Your task to perform on an android device: change the clock style Image 0: 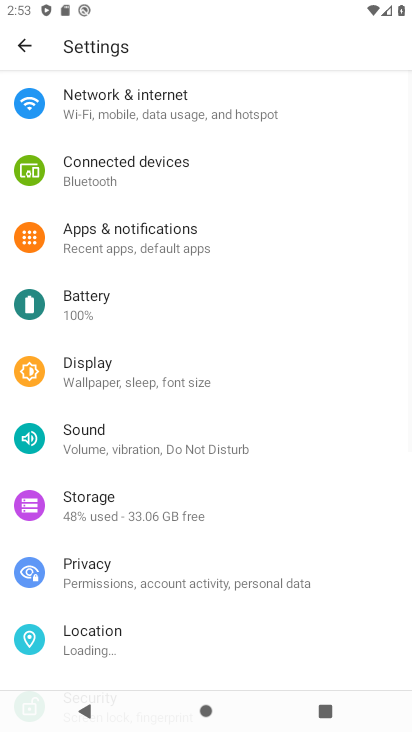
Step 0: press back button
Your task to perform on an android device: change the clock style Image 1: 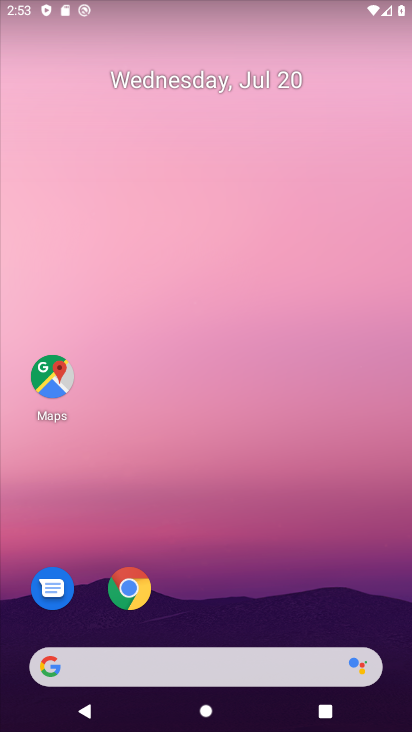
Step 1: drag from (266, 597) to (292, 69)
Your task to perform on an android device: change the clock style Image 2: 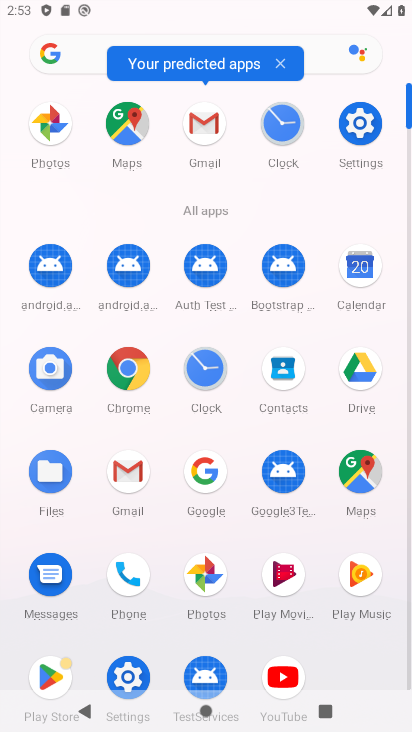
Step 2: drag from (274, 126) to (126, 186)
Your task to perform on an android device: change the clock style Image 3: 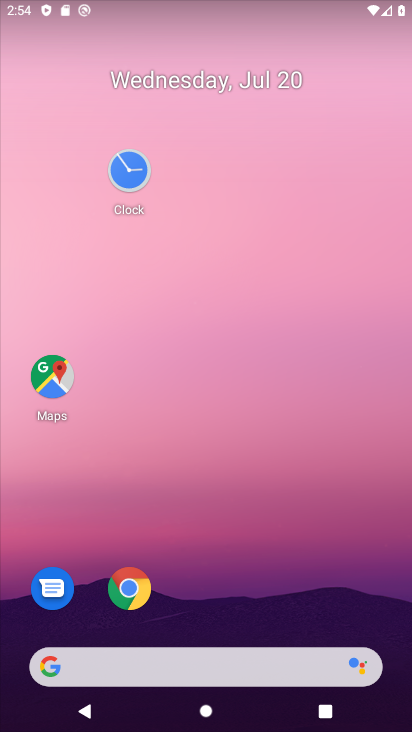
Step 3: click (127, 186)
Your task to perform on an android device: change the clock style Image 4: 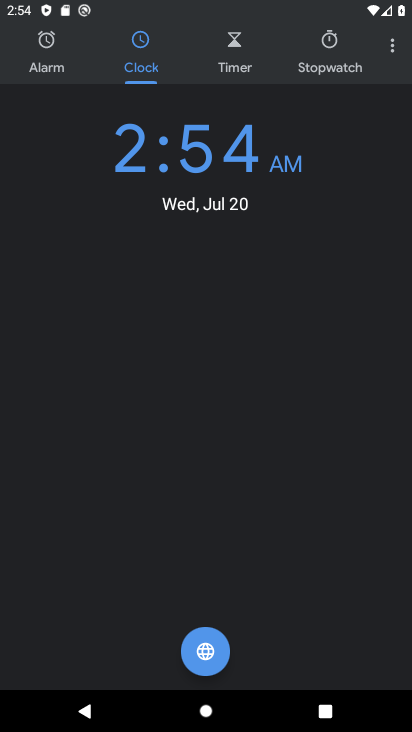
Step 4: click (389, 44)
Your task to perform on an android device: change the clock style Image 5: 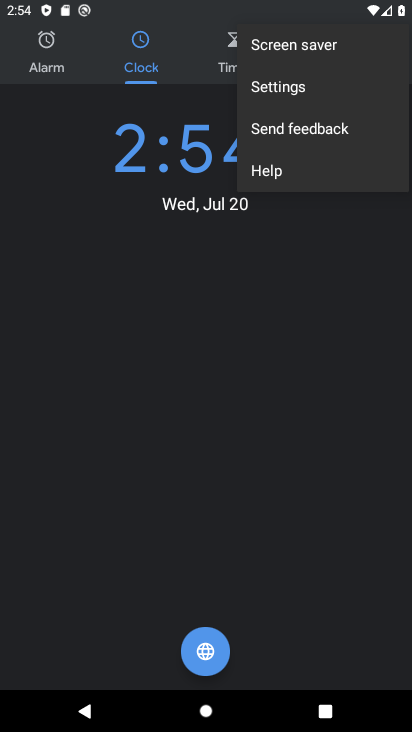
Step 5: click (273, 91)
Your task to perform on an android device: change the clock style Image 6: 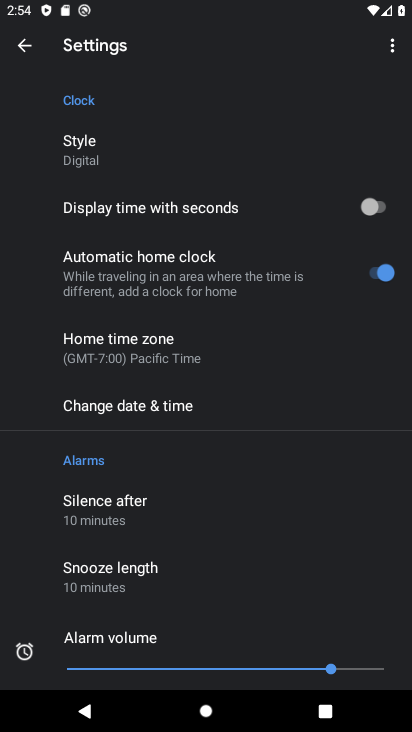
Step 6: click (105, 167)
Your task to perform on an android device: change the clock style Image 7: 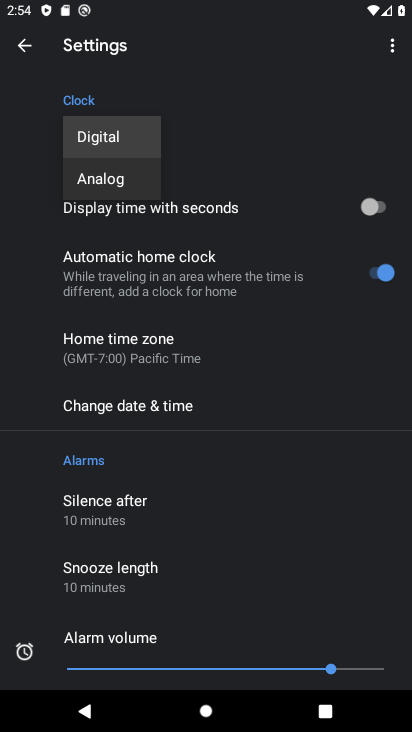
Step 7: click (100, 186)
Your task to perform on an android device: change the clock style Image 8: 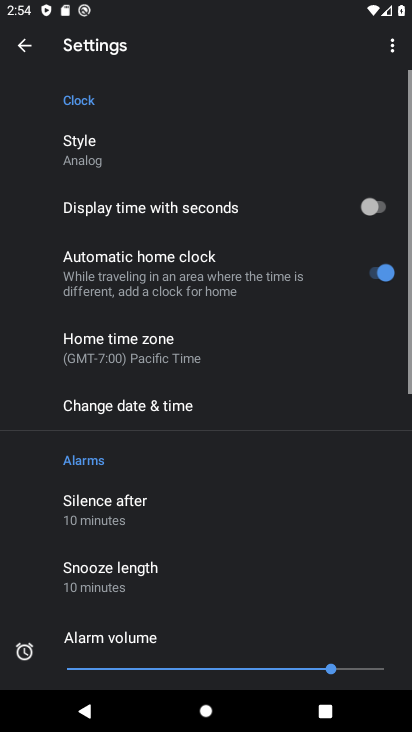
Step 8: task complete